Your task to perform on an android device: allow notifications from all sites in the chrome app Image 0: 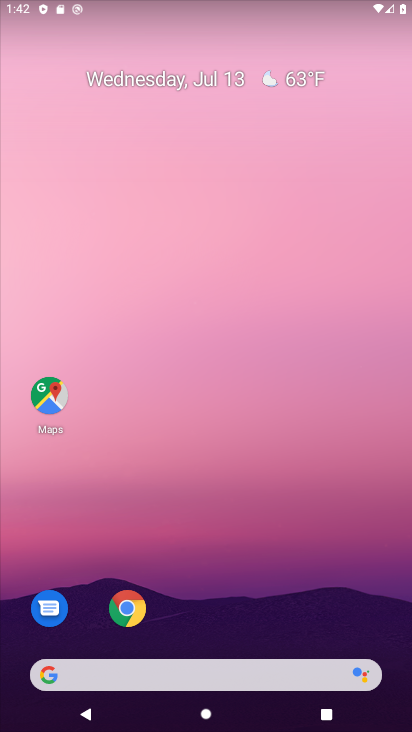
Step 0: drag from (309, 624) to (247, 556)
Your task to perform on an android device: allow notifications from all sites in the chrome app Image 1: 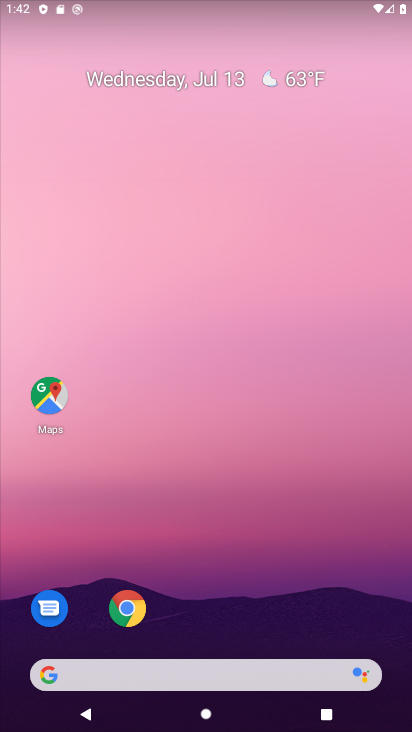
Step 1: click (122, 608)
Your task to perform on an android device: allow notifications from all sites in the chrome app Image 2: 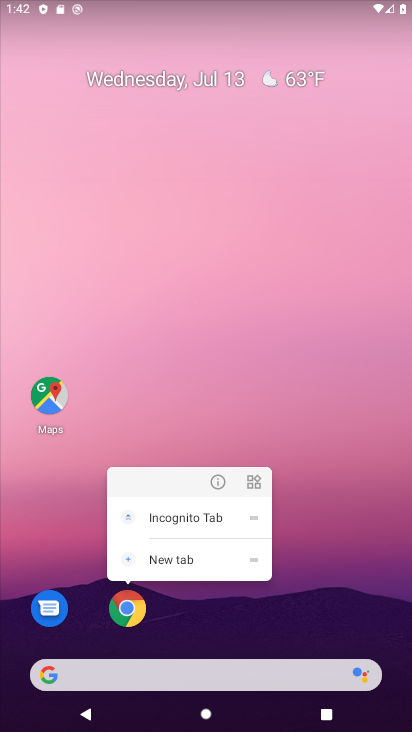
Step 2: click (217, 473)
Your task to perform on an android device: allow notifications from all sites in the chrome app Image 3: 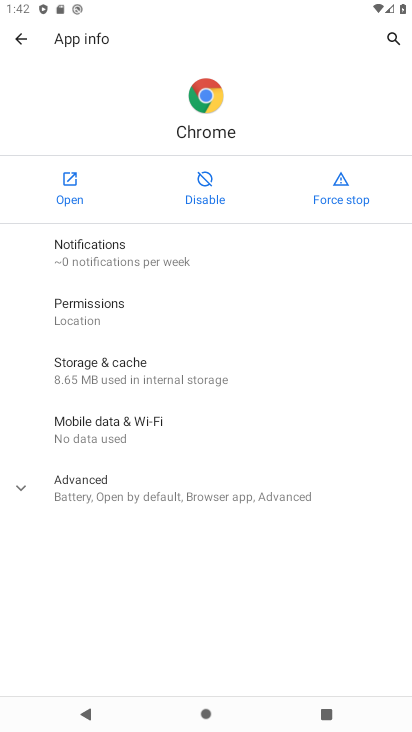
Step 3: click (111, 248)
Your task to perform on an android device: allow notifications from all sites in the chrome app Image 4: 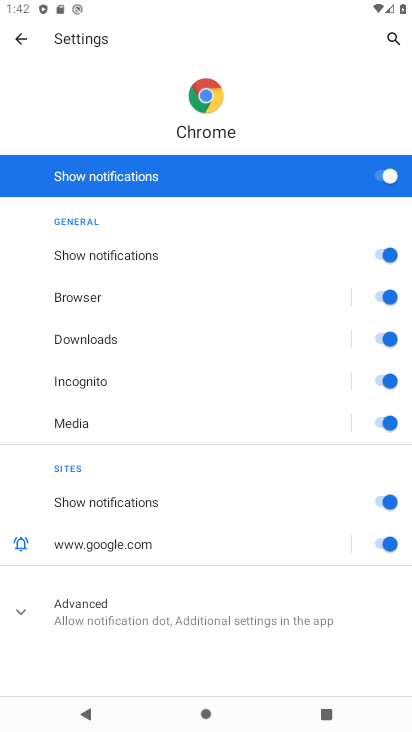
Step 4: task complete